Your task to perform on an android device: open wifi settings Image 0: 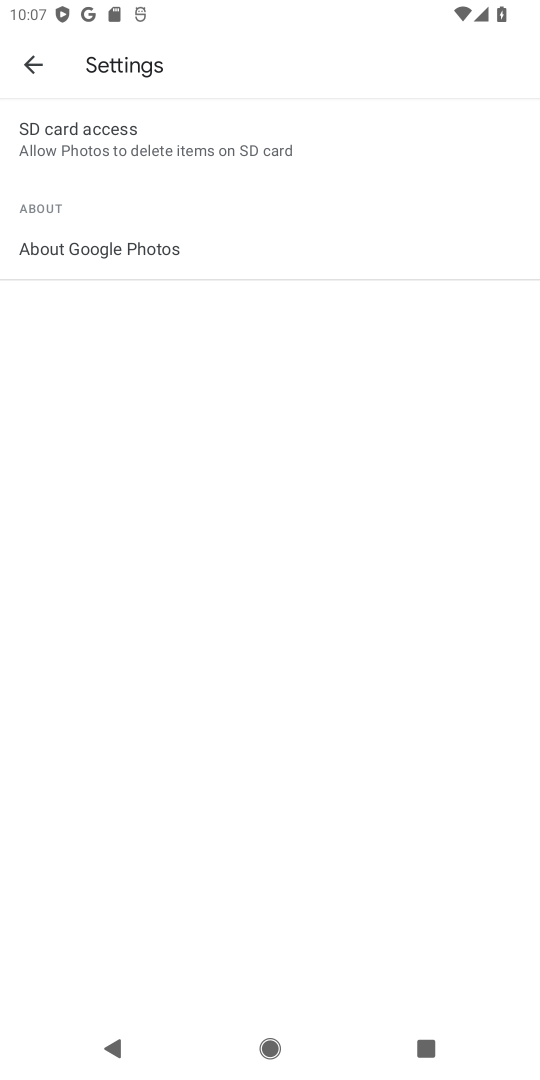
Step 0: press home button
Your task to perform on an android device: open wifi settings Image 1: 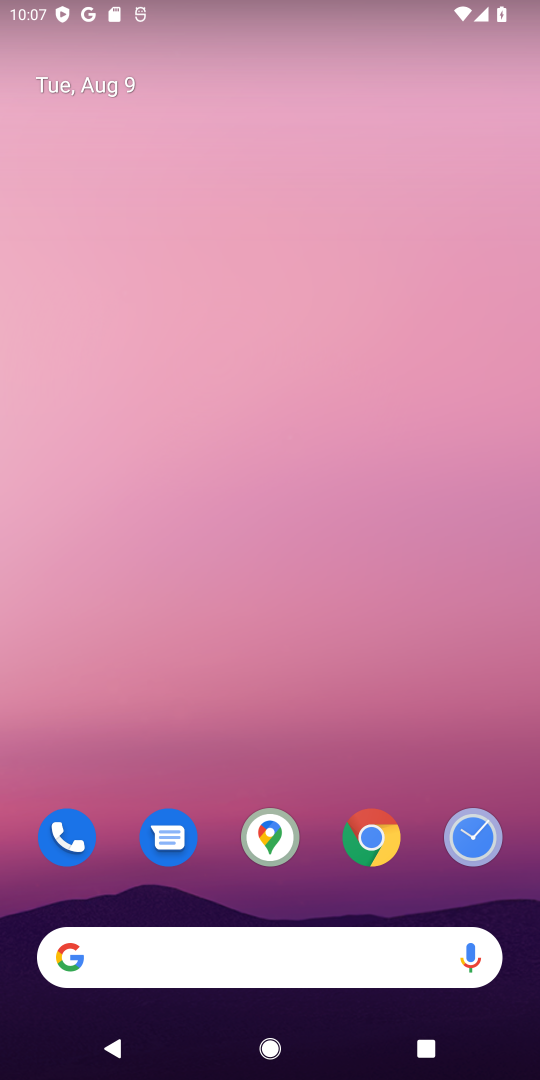
Step 1: drag from (317, 911) to (321, 67)
Your task to perform on an android device: open wifi settings Image 2: 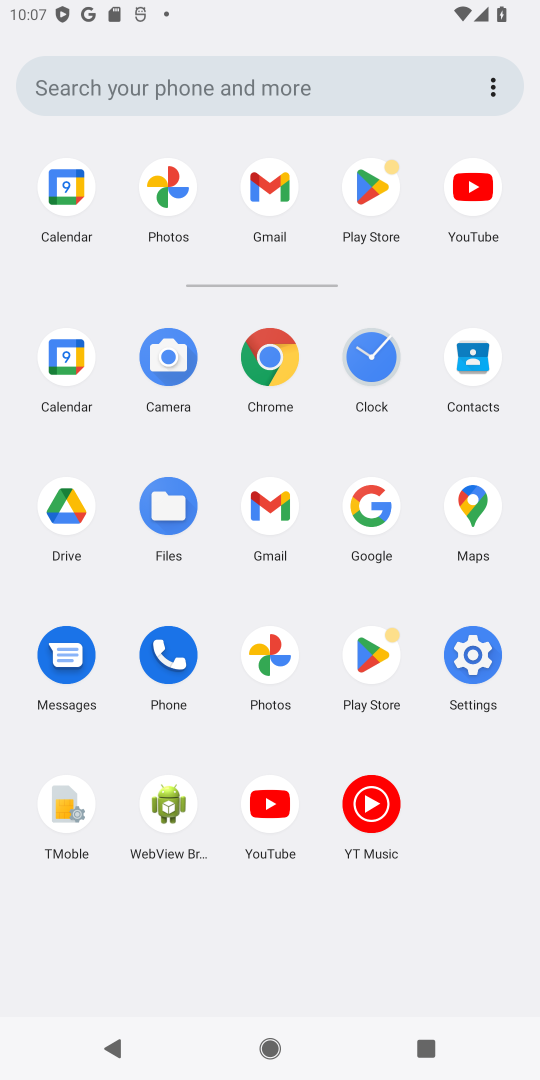
Step 2: click (474, 655)
Your task to perform on an android device: open wifi settings Image 3: 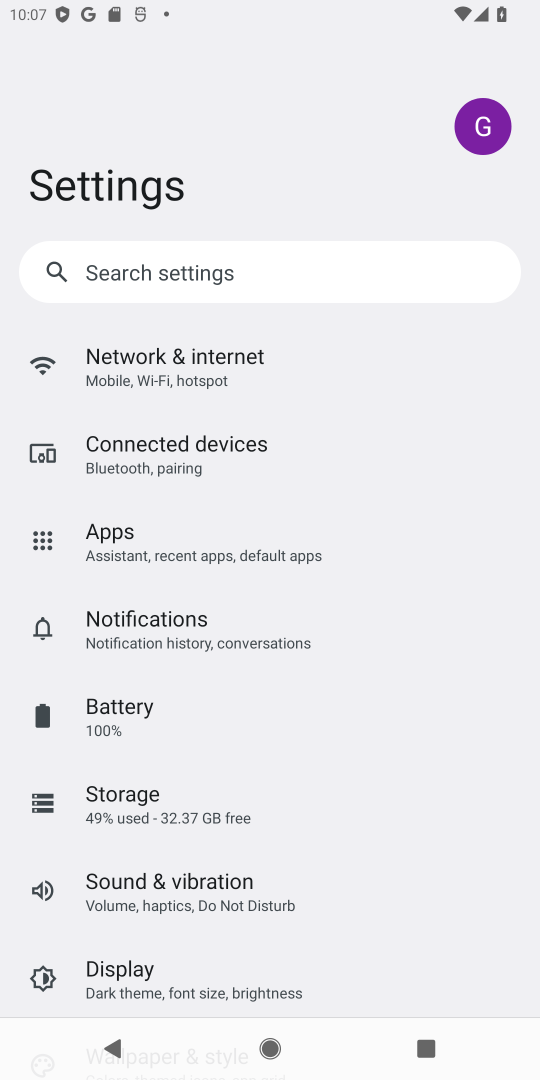
Step 3: click (189, 361)
Your task to perform on an android device: open wifi settings Image 4: 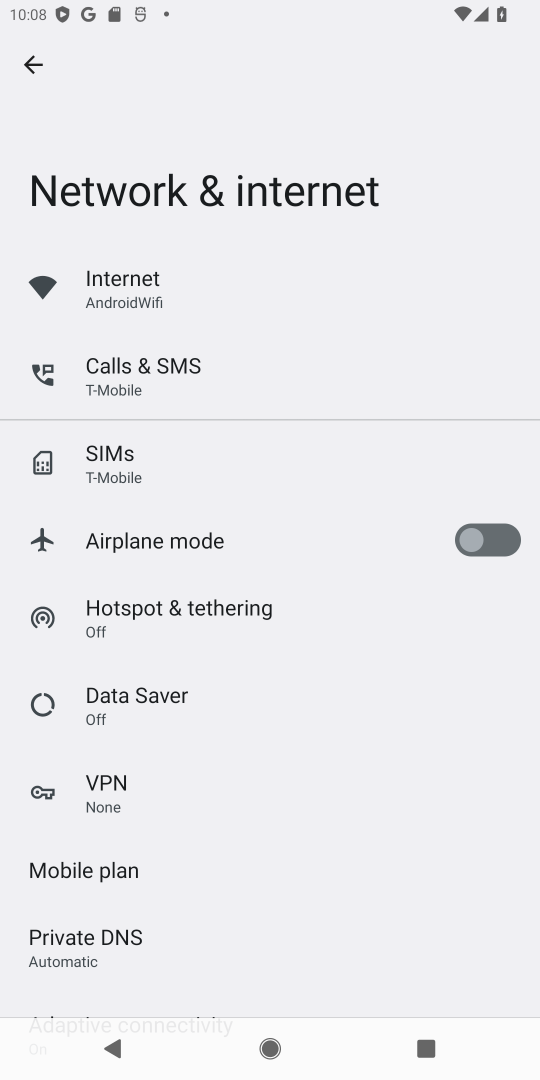
Step 4: click (125, 279)
Your task to perform on an android device: open wifi settings Image 5: 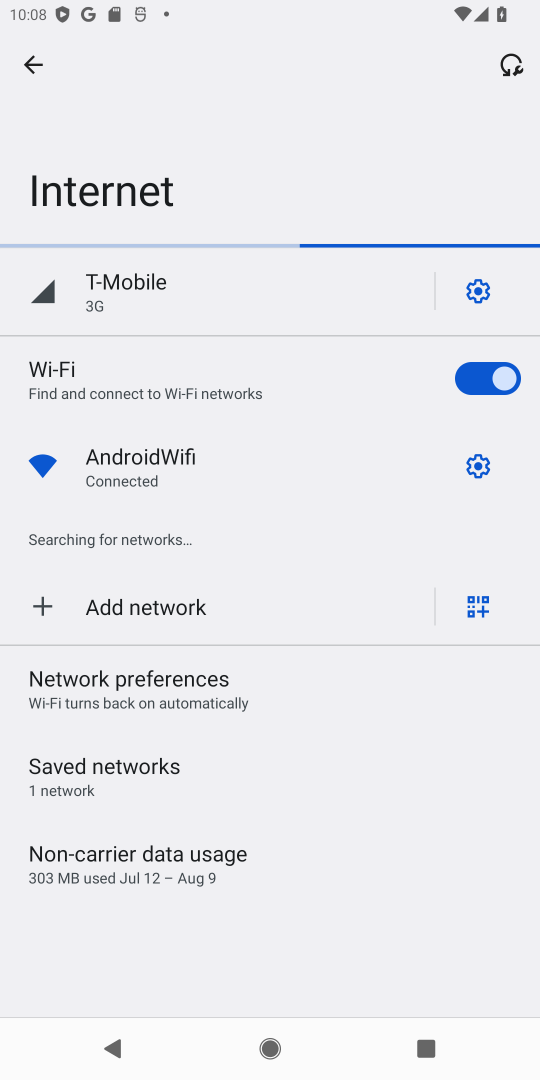
Step 5: click (477, 468)
Your task to perform on an android device: open wifi settings Image 6: 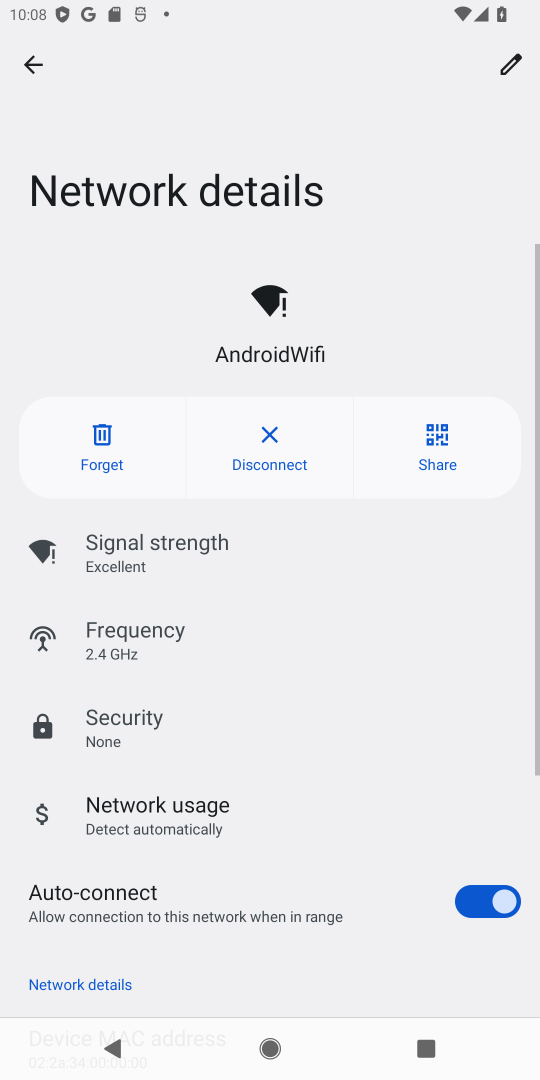
Step 6: task complete